Your task to perform on an android device: turn on improve location accuracy Image 0: 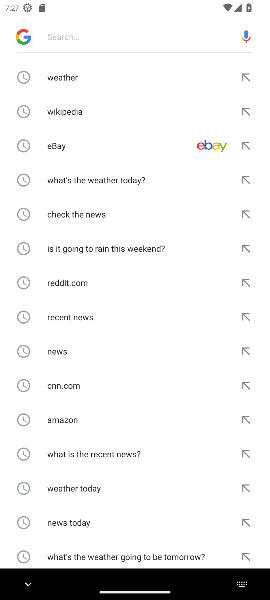
Step 0: press home button
Your task to perform on an android device: turn on improve location accuracy Image 1: 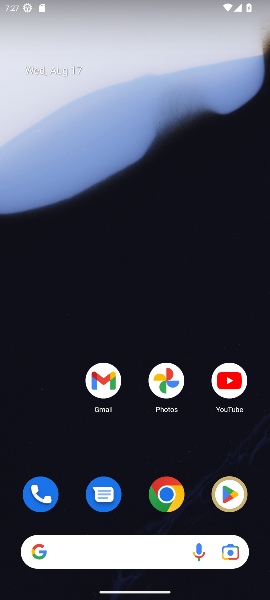
Step 1: drag from (128, 534) to (124, 108)
Your task to perform on an android device: turn on improve location accuracy Image 2: 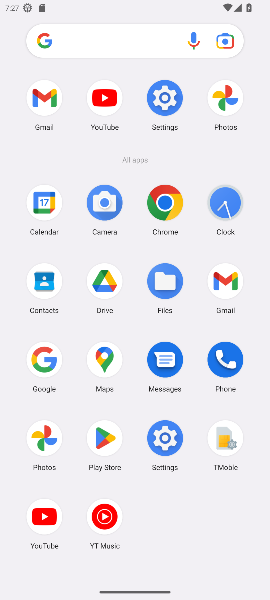
Step 2: click (163, 445)
Your task to perform on an android device: turn on improve location accuracy Image 3: 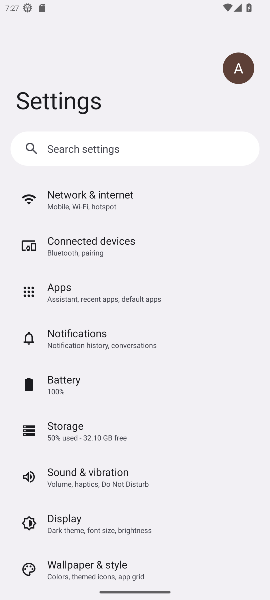
Step 3: drag from (112, 499) to (193, 152)
Your task to perform on an android device: turn on improve location accuracy Image 4: 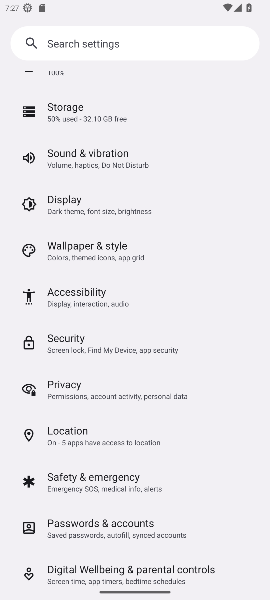
Step 4: click (106, 438)
Your task to perform on an android device: turn on improve location accuracy Image 5: 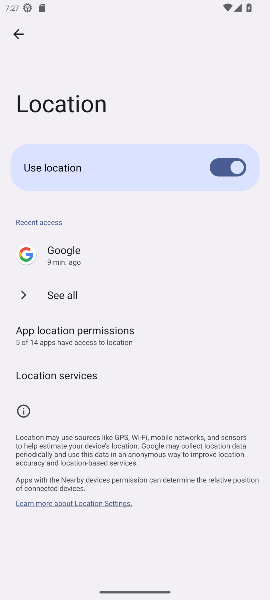
Step 5: drag from (108, 442) to (157, 199)
Your task to perform on an android device: turn on improve location accuracy Image 6: 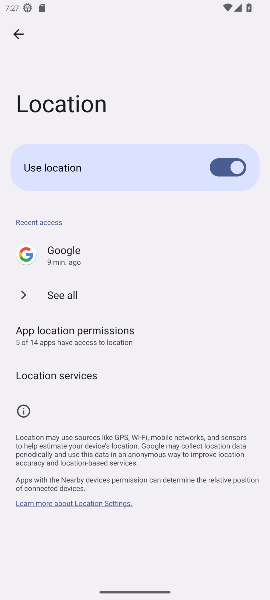
Step 6: click (46, 296)
Your task to perform on an android device: turn on improve location accuracy Image 7: 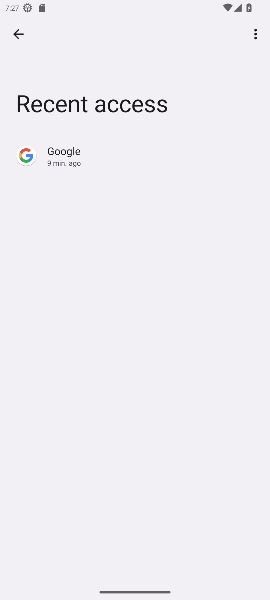
Step 7: task complete